Your task to perform on an android device: Open the web browser Image 0: 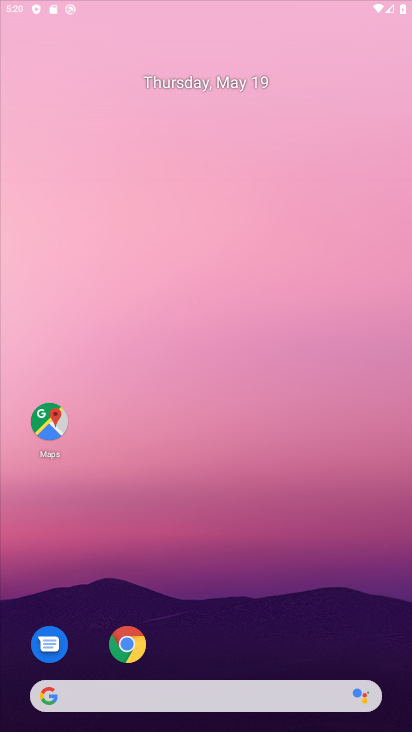
Step 0: drag from (364, 700) to (328, 257)
Your task to perform on an android device: Open the web browser Image 1: 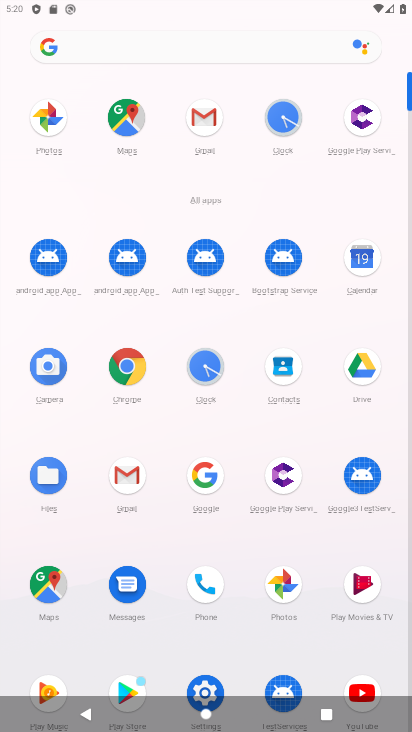
Step 1: click (129, 372)
Your task to perform on an android device: Open the web browser Image 2: 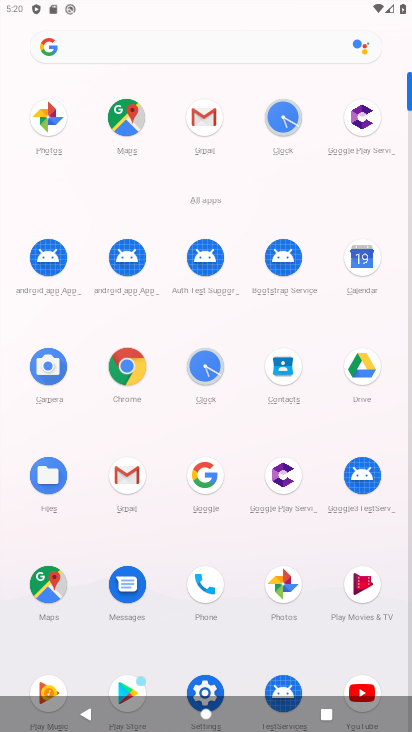
Step 2: click (131, 371)
Your task to perform on an android device: Open the web browser Image 3: 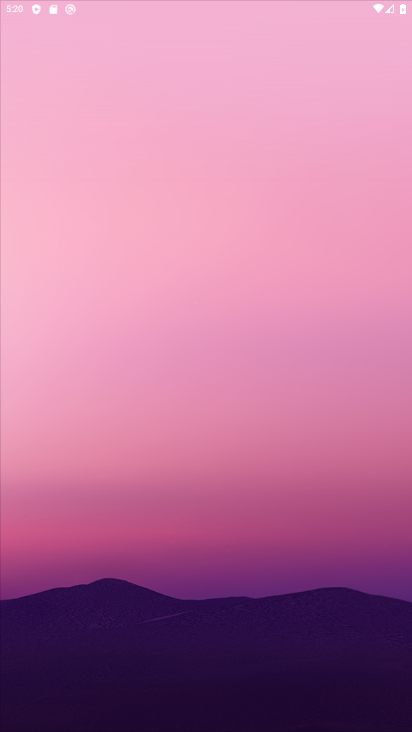
Step 3: click (132, 370)
Your task to perform on an android device: Open the web browser Image 4: 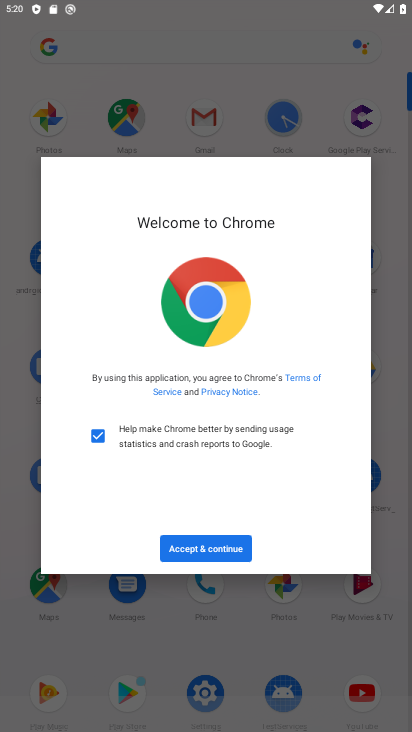
Step 4: click (217, 542)
Your task to perform on an android device: Open the web browser Image 5: 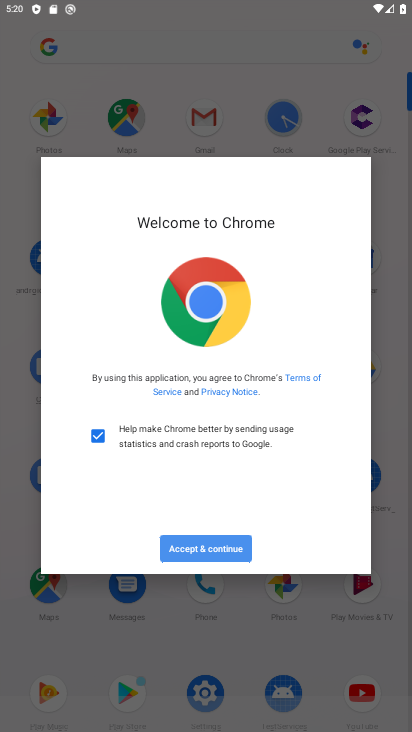
Step 5: click (217, 542)
Your task to perform on an android device: Open the web browser Image 6: 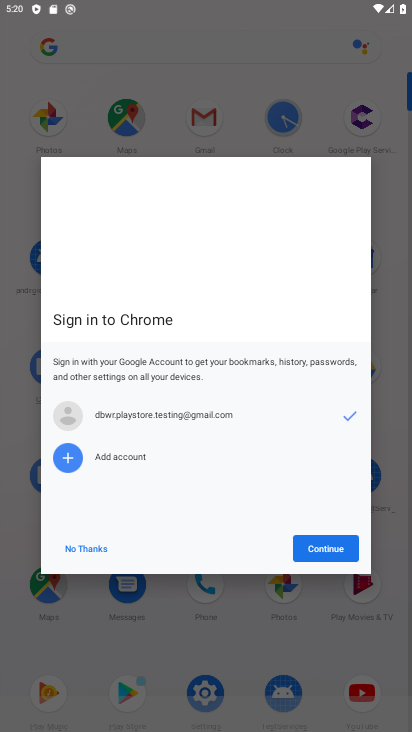
Step 6: click (317, 541)
Your task to perform on an android device: Open the web browser Image 7: 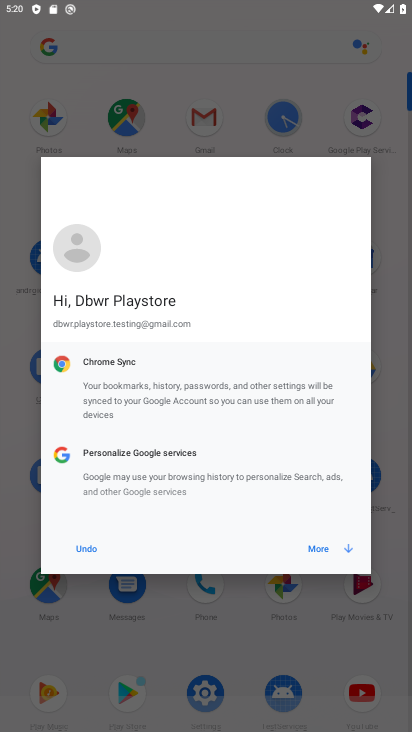
Step 7: click (314, 537)
Your task to perform on an android device: Open the web browser Image 8: 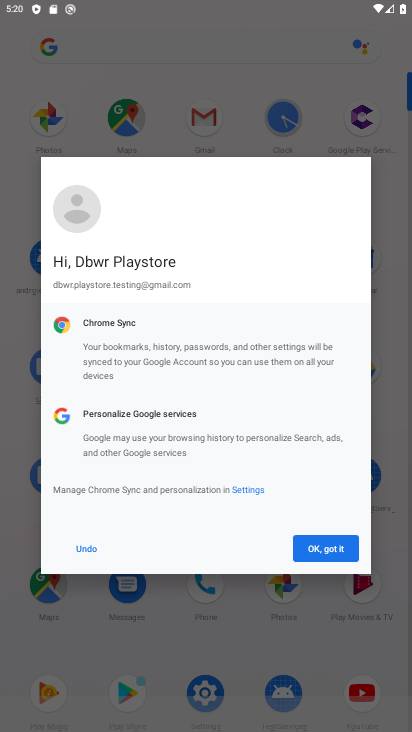
Step 8: click (334, 543)
Your task to perform on an android device: Open the web browser Image 9: 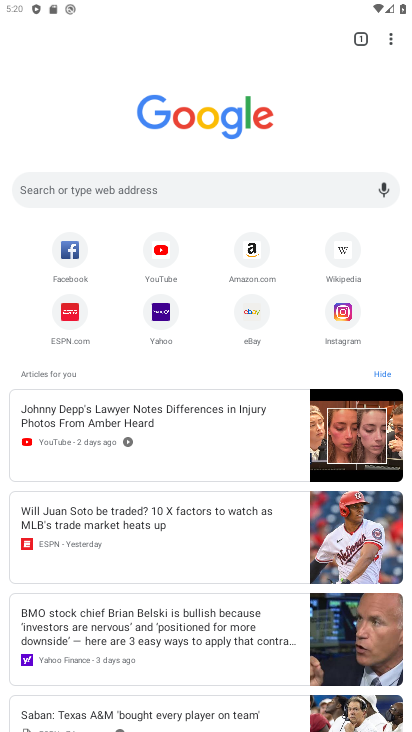
Step 9: click (52, 190)
Your task to perform on an android device: Open the web browser Image 10: 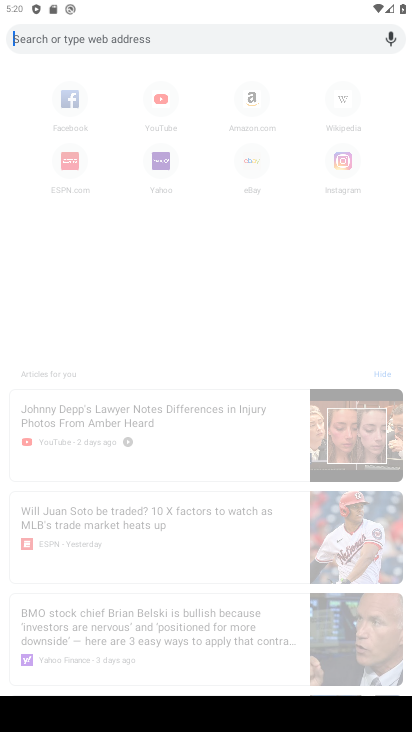
Step 10: click (54, 40)
Your task to perform on an android device: Open the web browser Image 11: 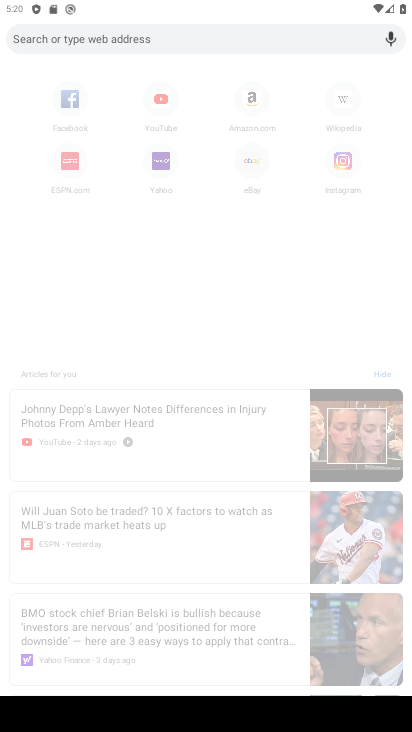
Step 11: click (54, 40)
Your task to perform on an android device: Open the web browser Image 12: 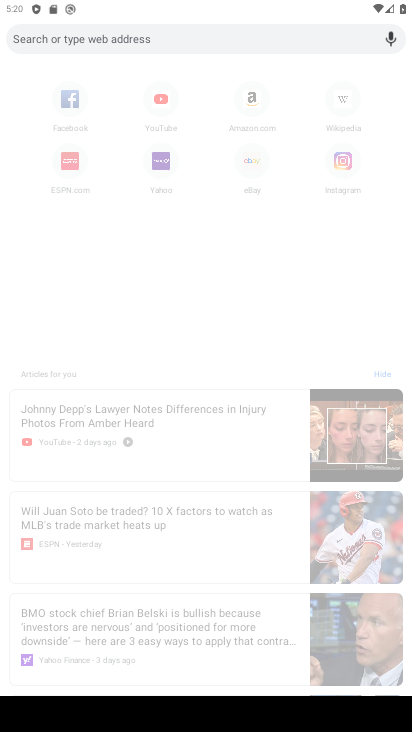
Step 12: task complete